Your task to perform on an android device: Open Chrome and go to settings Image 0: 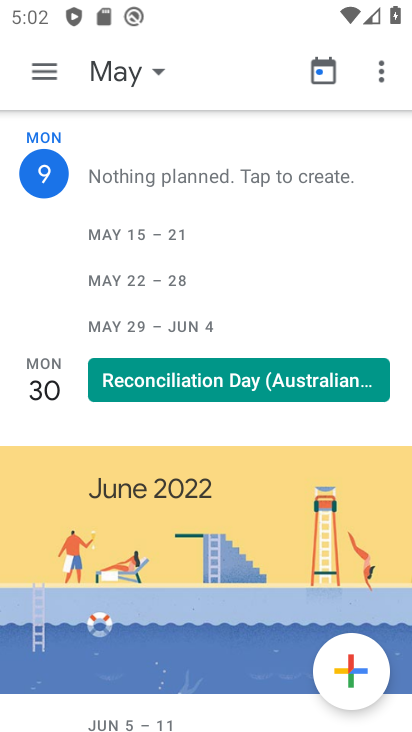
Step 0: press home button
Your task to perform on an android device: Open Chrome and go to settings Image 1: 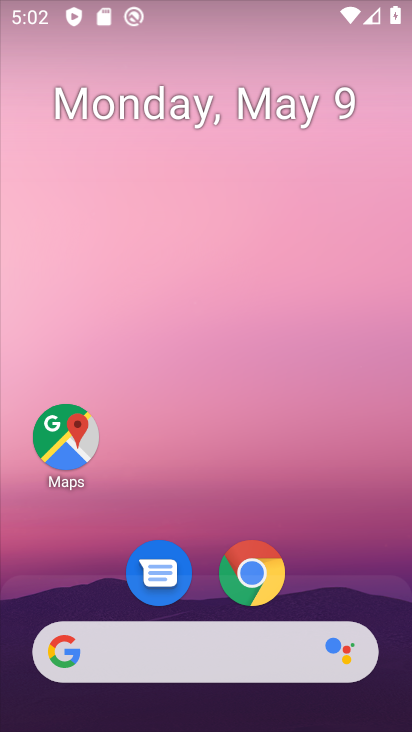
Step 1: drag from (312, 576) to (346, 203)
Your task to perform on an android device: Open Chrome and go to settings Image 2: 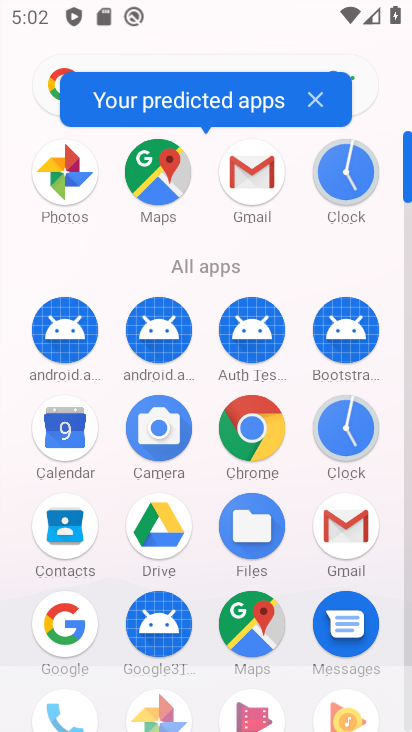
Step 2: click (252, 480)
Your task to perform on an android device: Open Chrome and go to settings Image 3: 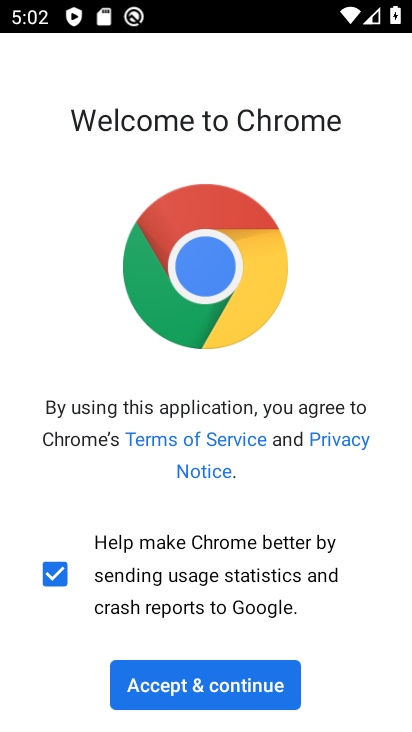
Step 3: click (237, 682)
Your task to perform on an android device: Open Chrome and go to settings Image 4: 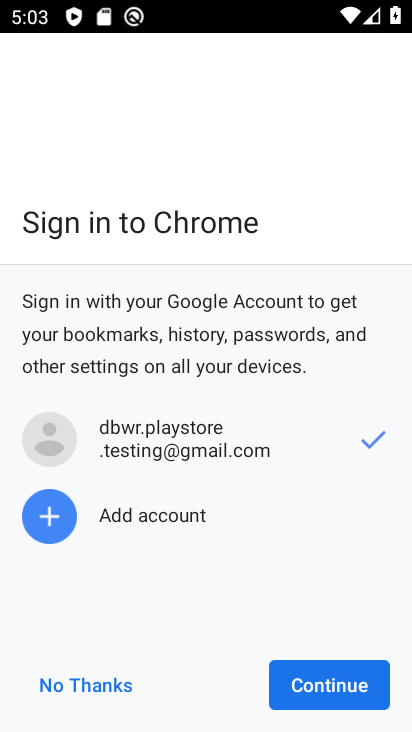
Step 4: click (382, 680)
Your task to perform on an android device: Open Chrome and go to settings Image 5: 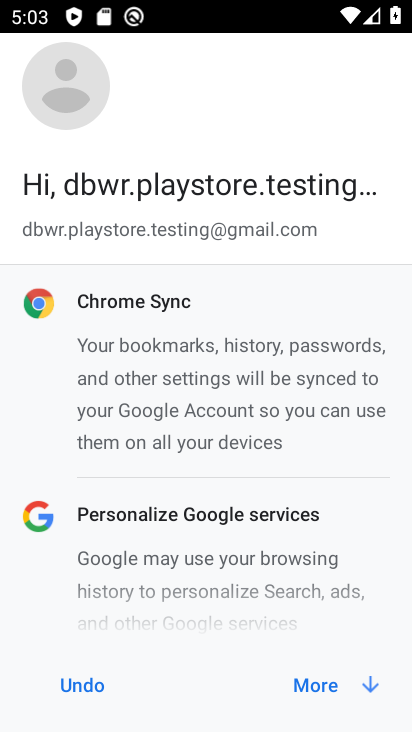
Step 5: click (314, 692)
Your task to perform on an android device: Open Chrome and go to settings Image 6: 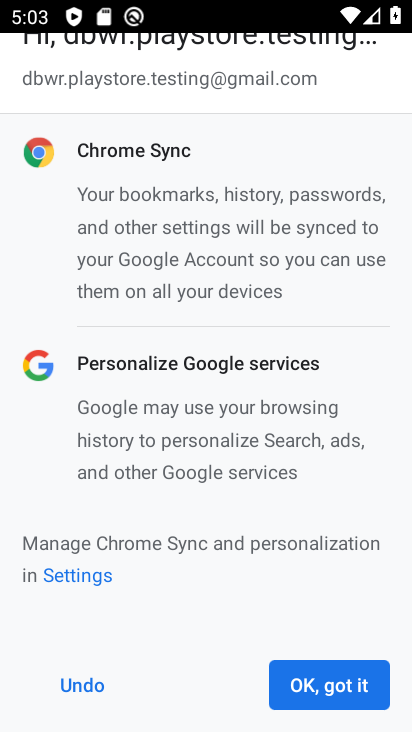
Step 6: click (316, 690)
Your task to perform on an android device: Open Chrome and go to settings Image 7: 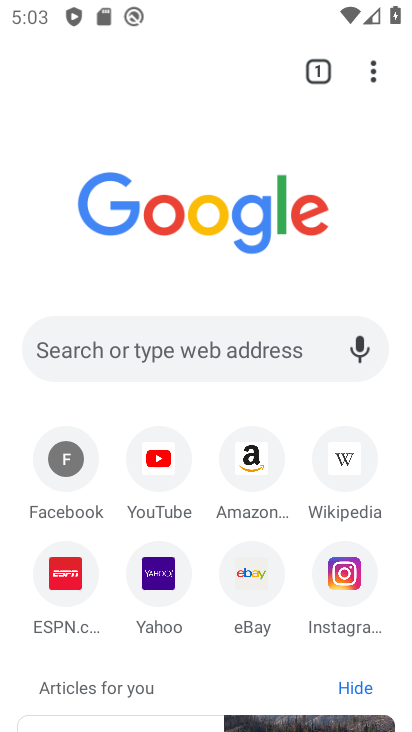
Step 7: click (374, 70)
Your task to perform on an android device: Open Chrome and go to settings Image 8: 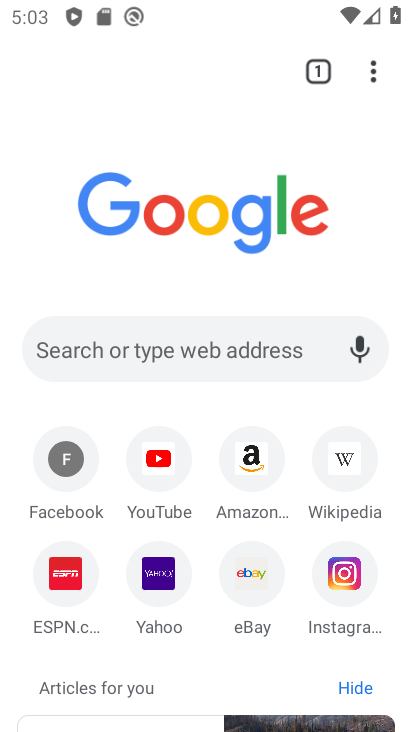
Step 8: click (371, 77)
Your task to perform on an android device: Open Chrome and go to settings Image 9: 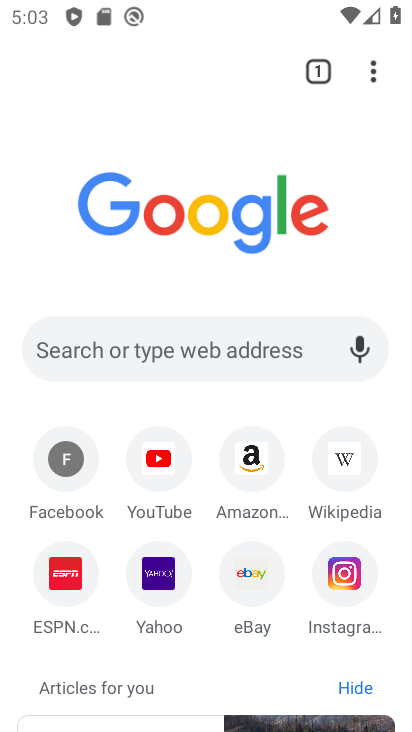
Step 9: click (371, 74)
Your task to perform on an android device: Open Chrome and go to settings Image 10: 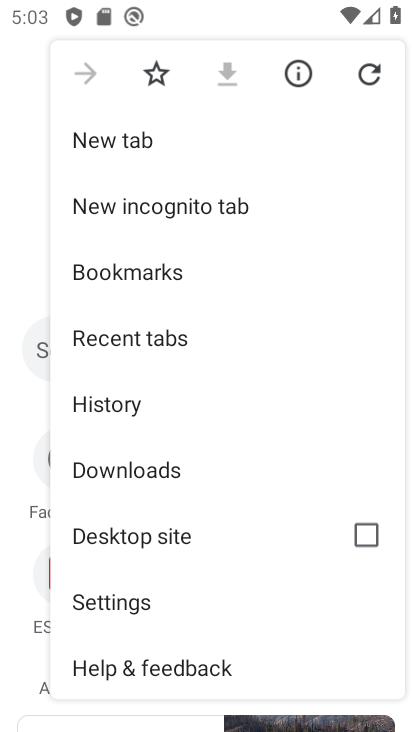
Step 10: click (142, 605)
Your task to perform on an android device: Open Chrome and go to settings Image 11: 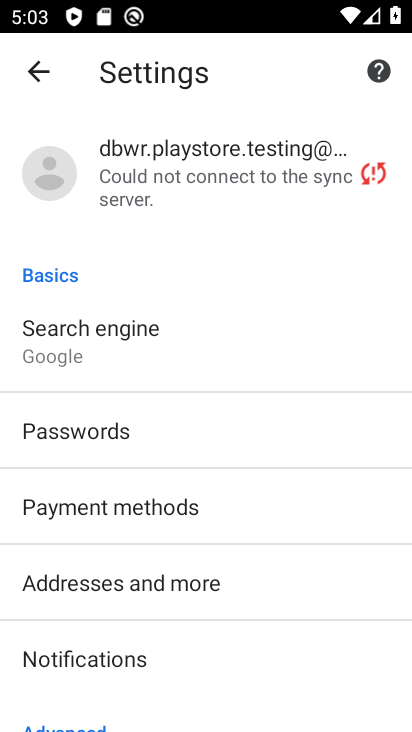
Step 11: task complete